Your task to perform on an android device: Go to eBay Image 0: 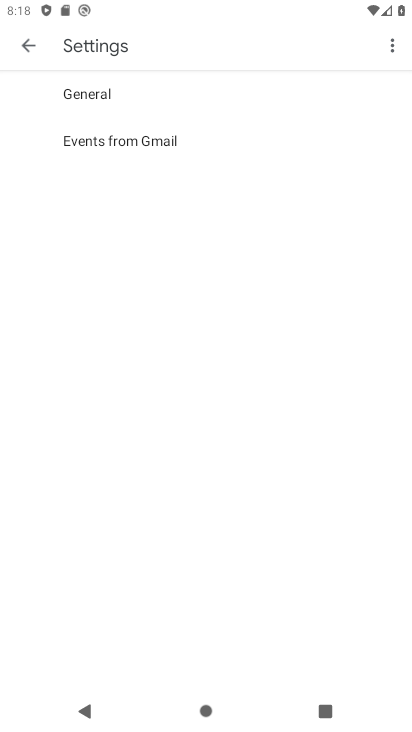
Step 0: press home button
Your task to perform on an android device: Go to eBay Image 1: 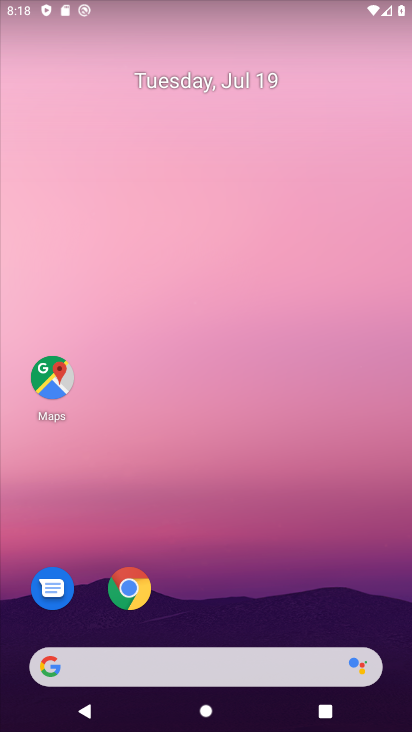
Step 1: click (135, 593)
Your task to perform on an android device: Go to eBay Image 2: 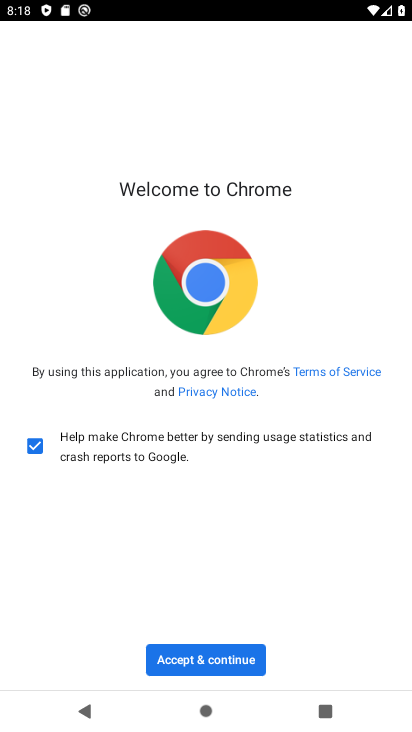
Step 2: click (238, 658)
Your task to perform on an android device: Go to eBay Image 3: 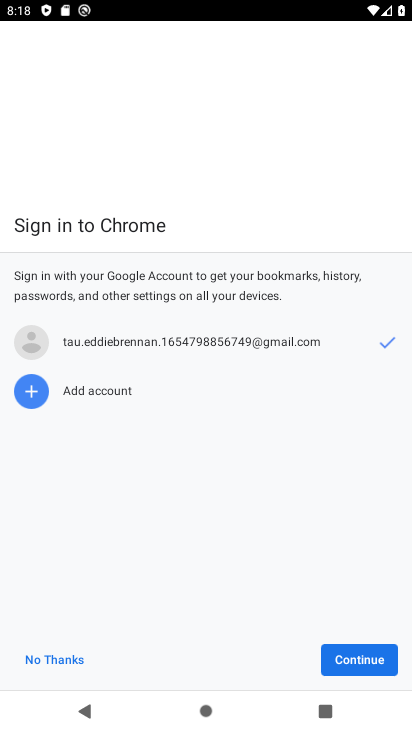
Step 3: click (363, 658)
Your task to perform on an android device: Go to eBay Image 4: 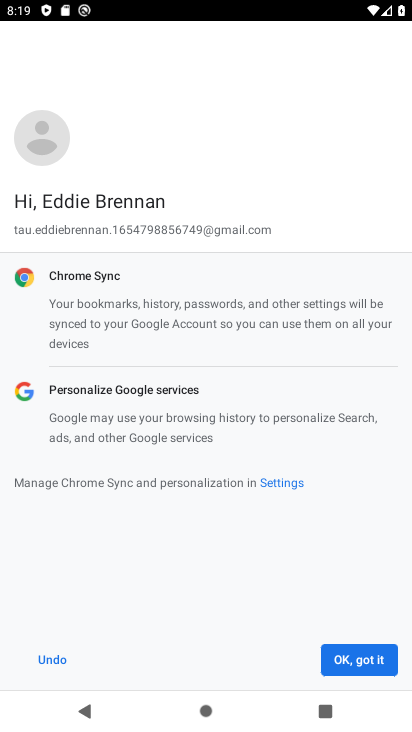
Step 4: click (370, 665)
Your task to perform on an android device: Go to eBay Image 5: 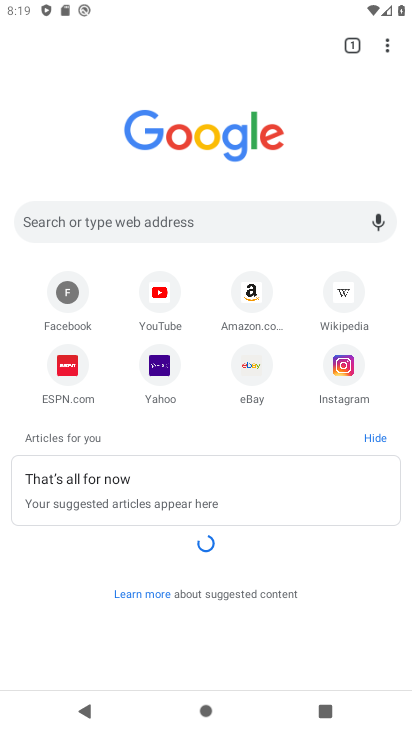
Step 5: click (255, 364)
Your task to perform on an android device: Go to eBay Image 6: 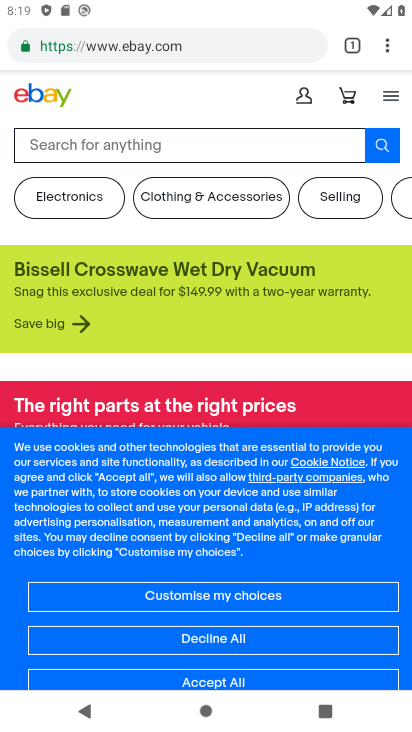
Step 6: task complete